Your task to perform on an android device: move a message to another label in the gmail app Image 0: 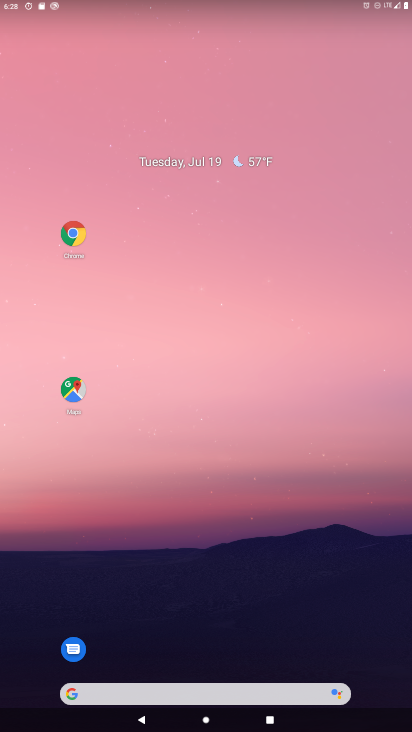
Step 0: drag from (170, 505) to (168, 107)
Your task to perform on an android device: move a message to another label in the gmail app Image 1: 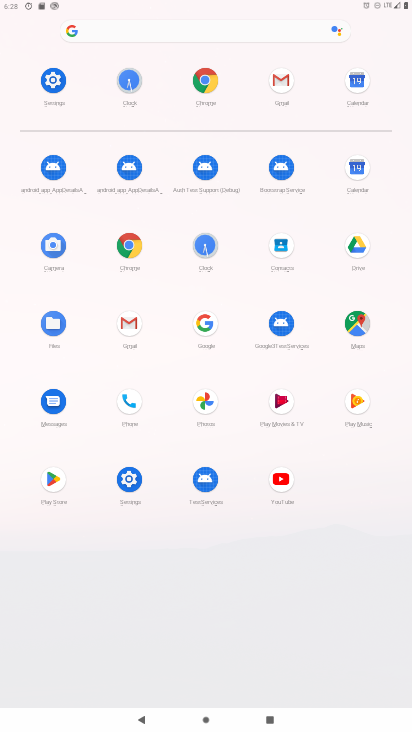
Step 1: click (286, 86)
Your task to perform on an android device: move a message to another label in the gmail app Image 2: 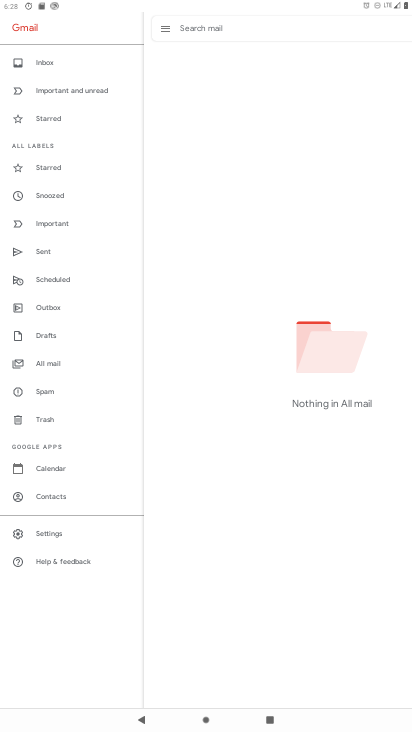
Step 2: task complete